Your task to perform on an android device: Search for hotels in Philadelphia Image 0: 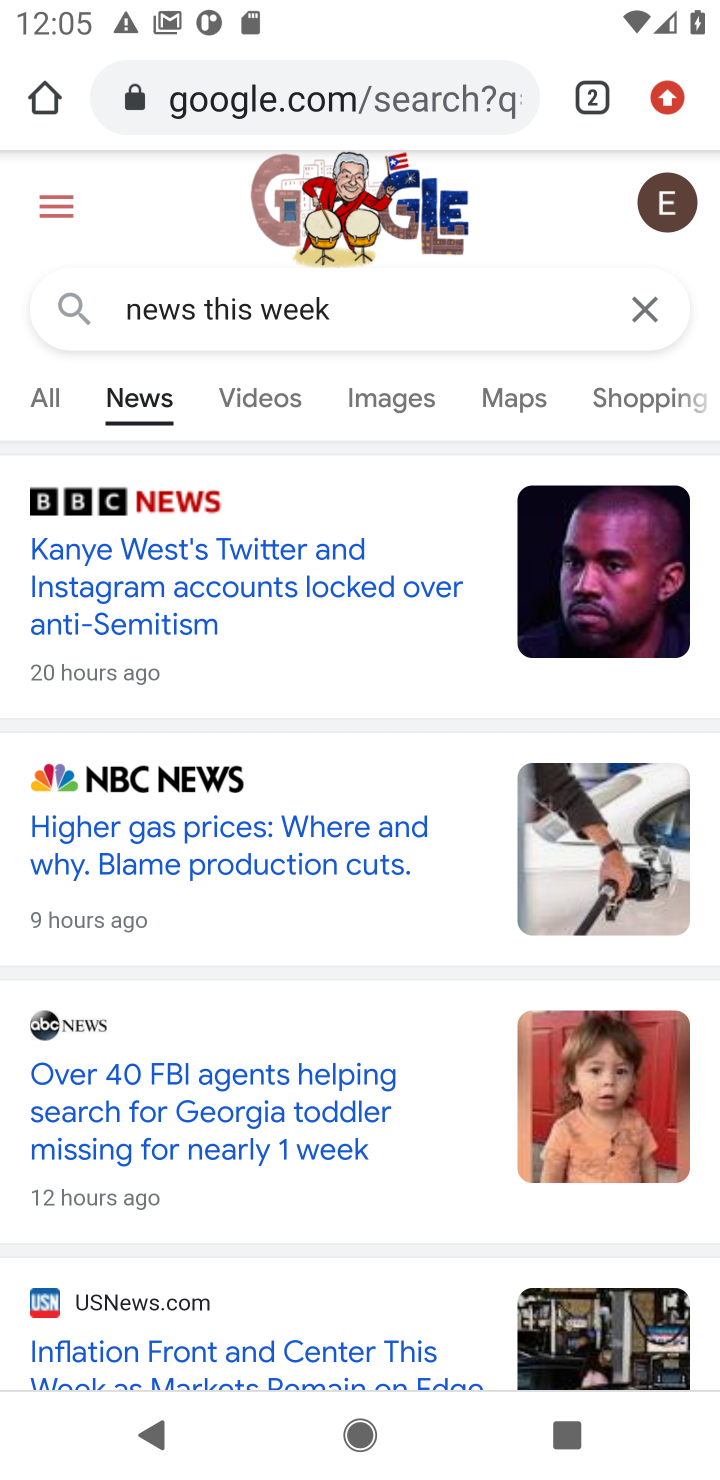
Step 0: press home button
Your task to perform on an android device: Search for hotels in Philadelphia Image 1: 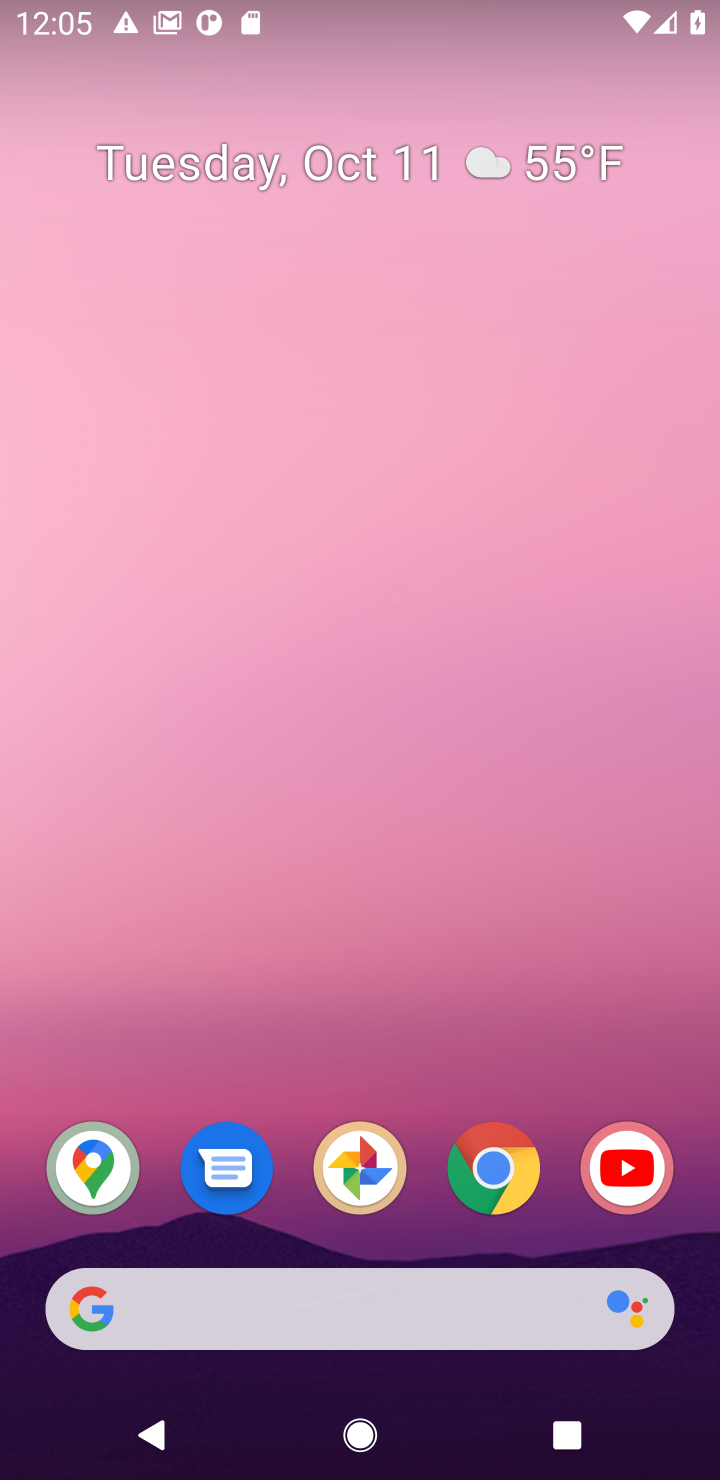
Step 1: drag from (411, 1060) to (506, 407)
Your task to perform on an android device: Search for hotels in Philadelphia Image 2: 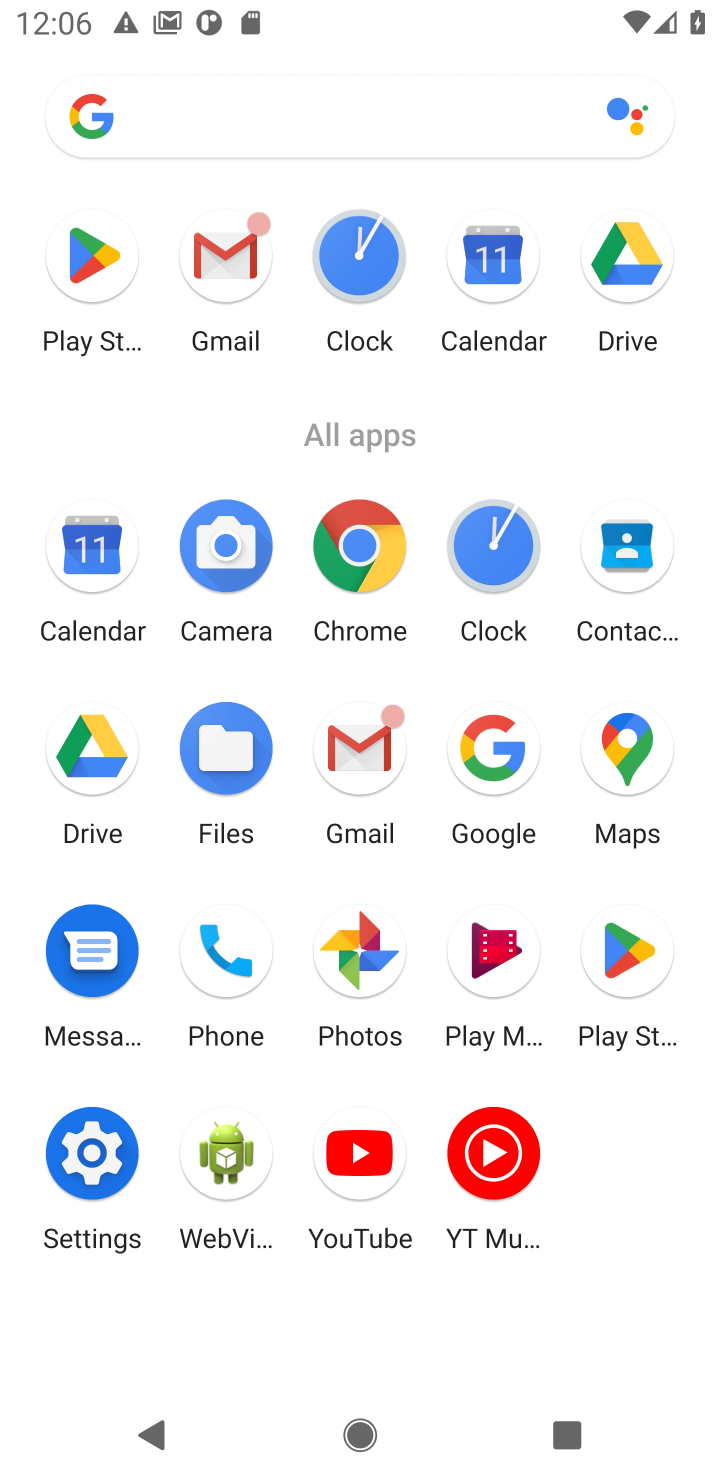
Step 2: click (480, 770)
Your task to perform on an android device: Search for hotels in Philadelphia Image 3: 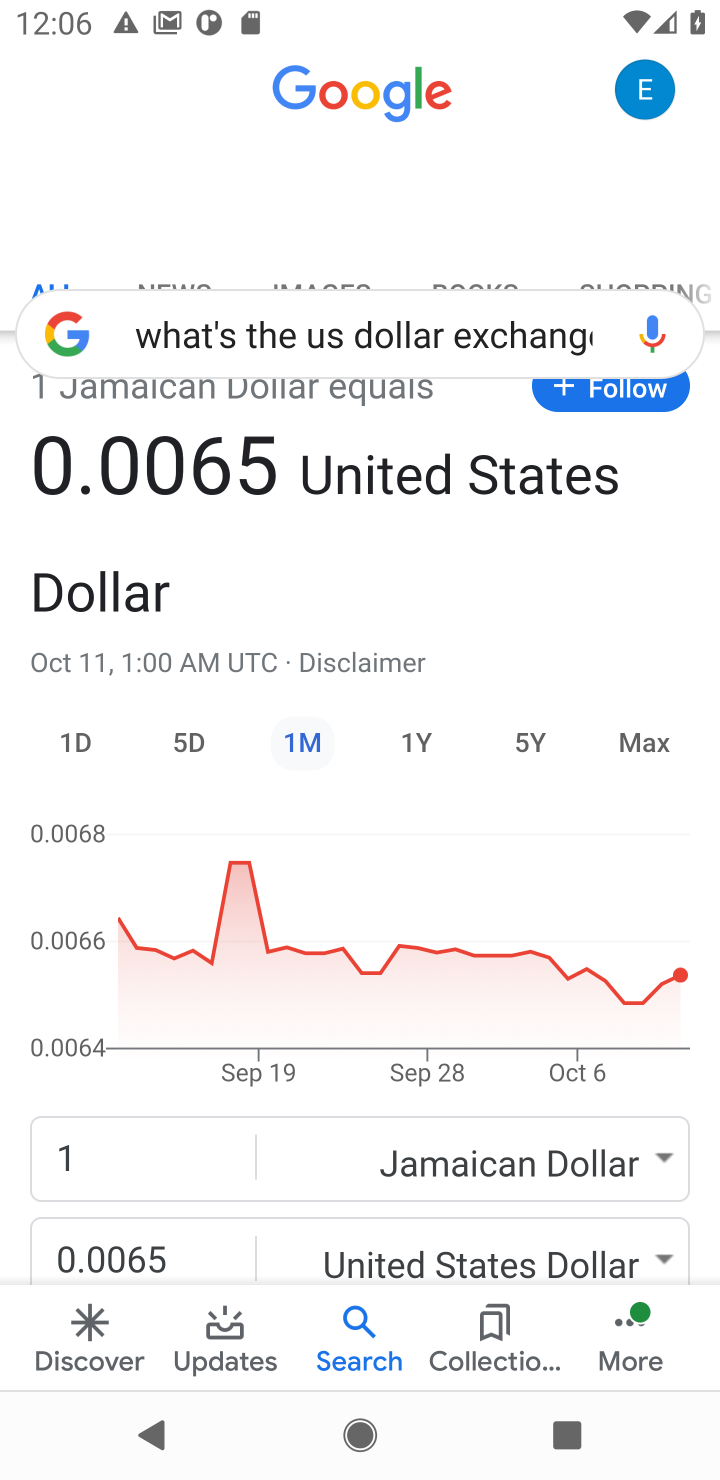
Step 3: click (441, 344)
Your task to perform on an android device: Search for hotels in Philadelphia Image 4: 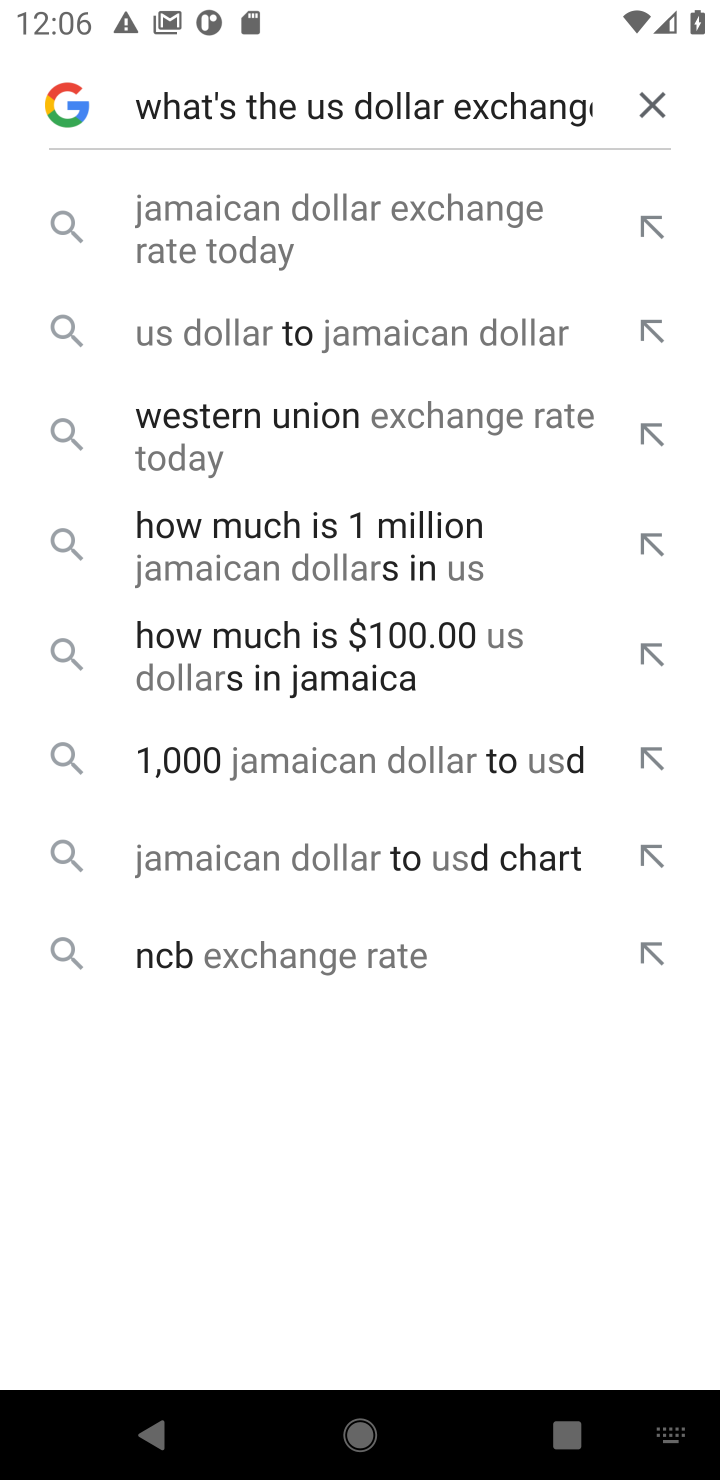
Step 4: click (655, 87)
Your task to perform on an android device: Search for hotels in Philadelphia Image 5: 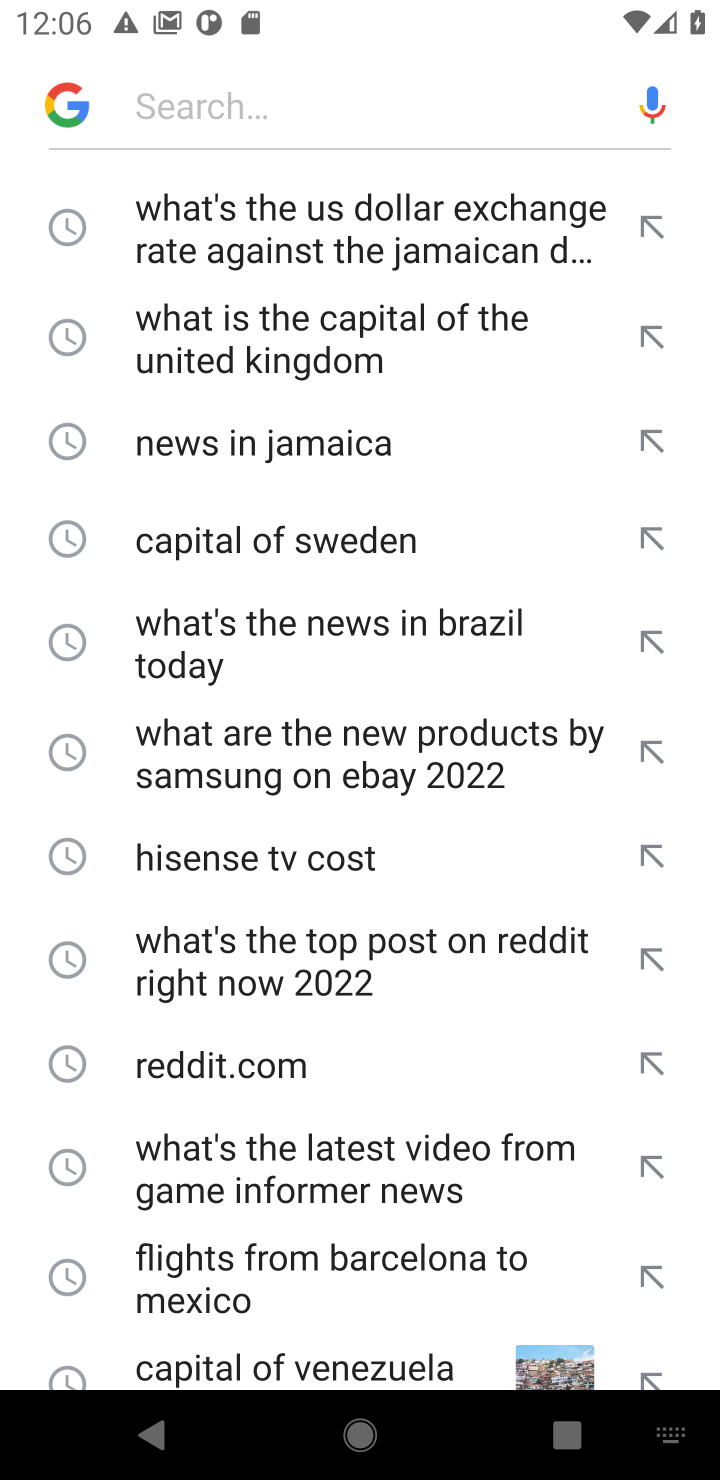
Step 5: type "hotels in Philadelphia"
Your task to perform on an android device: Search for hotels in Philadelphia Image 6: 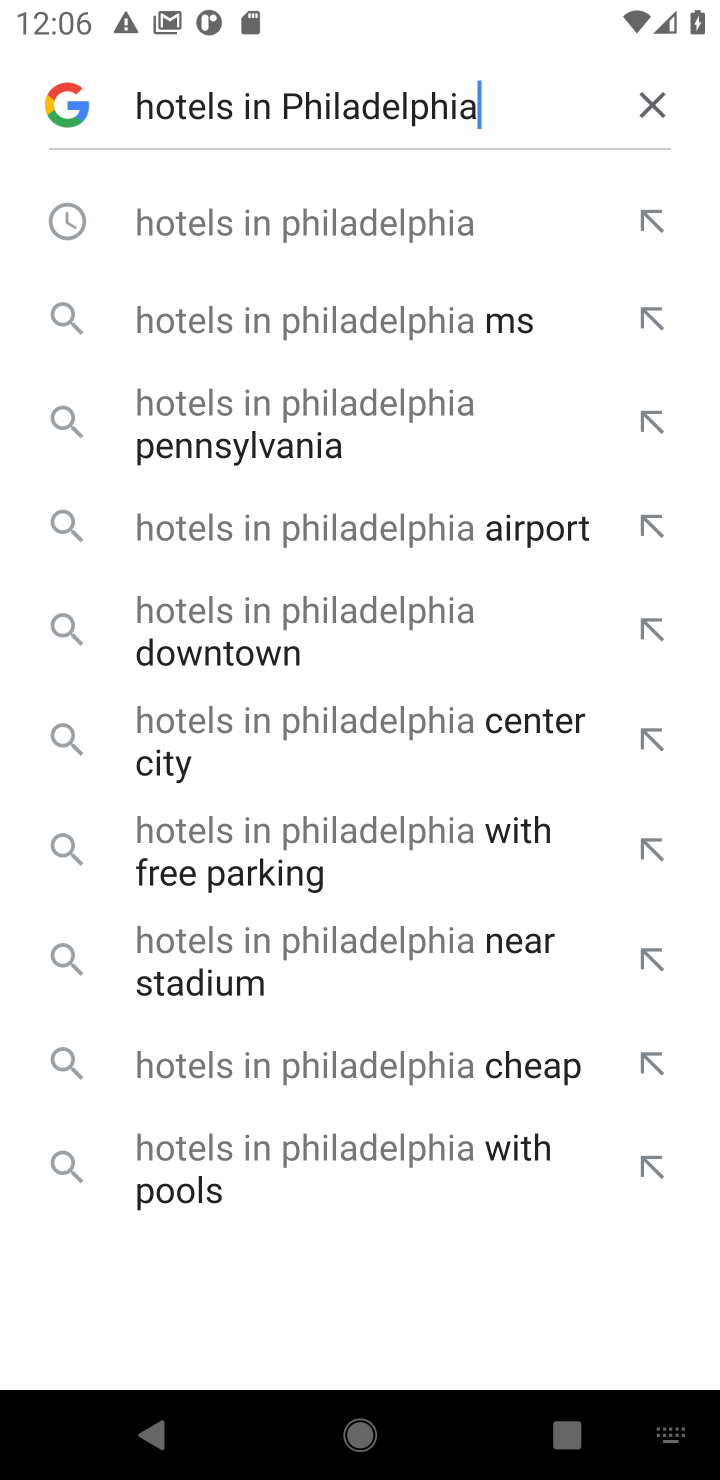
Step 6: click (317, 220)
Your task to perform on an android device: Search for hotels in Philadelphia Image 7: 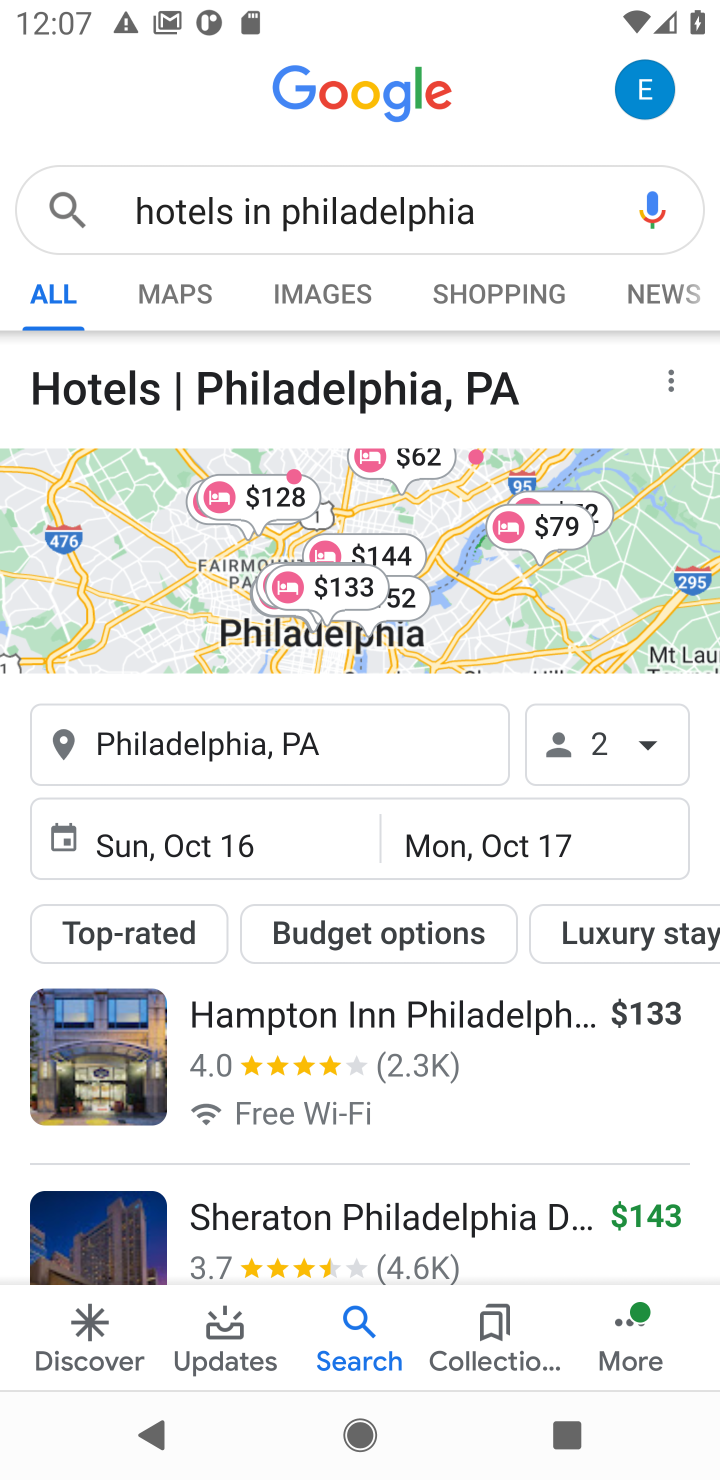
Step 7: task complete